Your task to perform on an android device: Search for a new eyeshadow on Sephora Image 0: 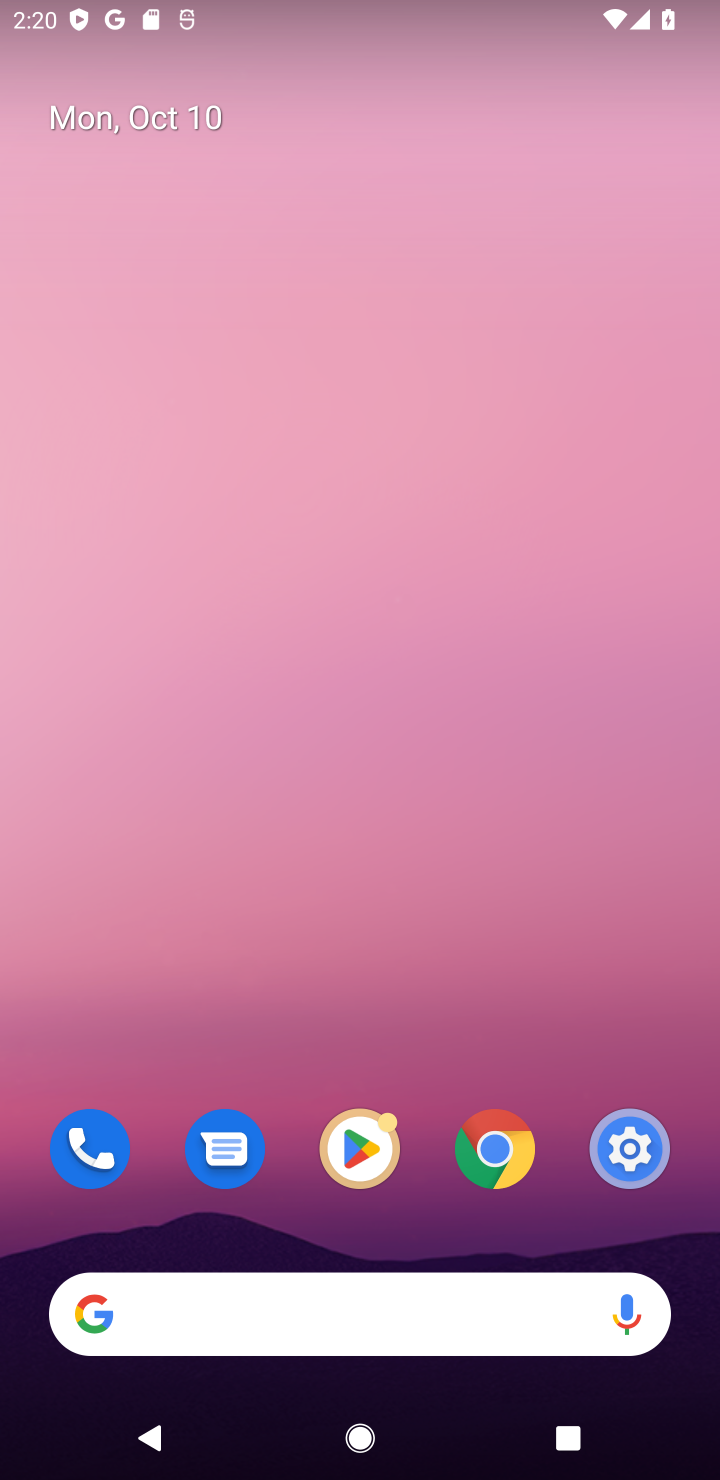
Step 0: drag from (554, 1239) to (515, 154)
Your task to perform on an android device: Search for a new eyeshadow on Sephora Image 1: 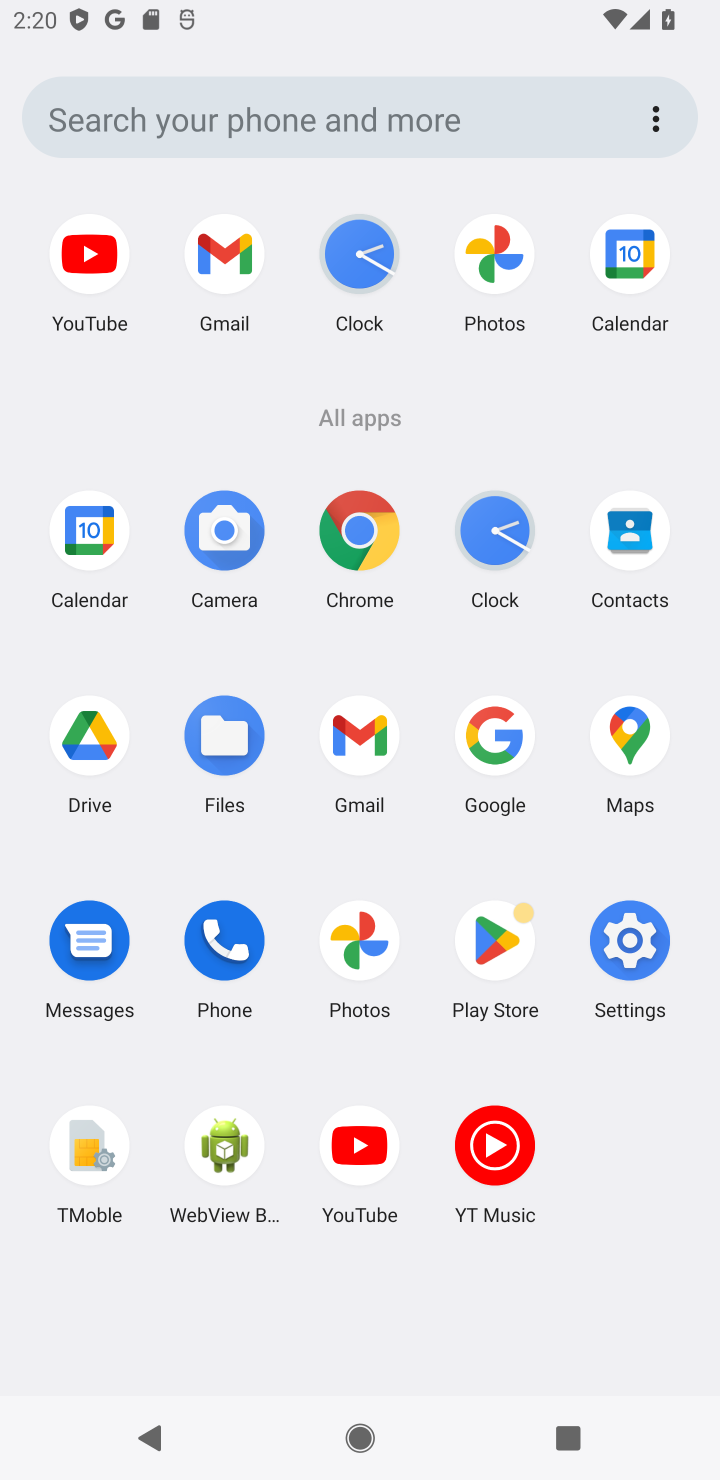
Step 1: task complete